Your task to perform on an android device: Open Youtube and go to "Your channel" Image 0: 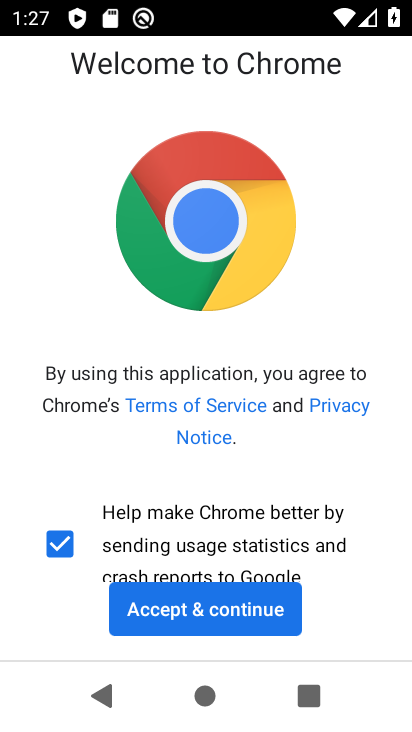
Step 0: click (234, 608)
Your task to perform on an android device: Open Youtube and go to "Your channel" Image 1: 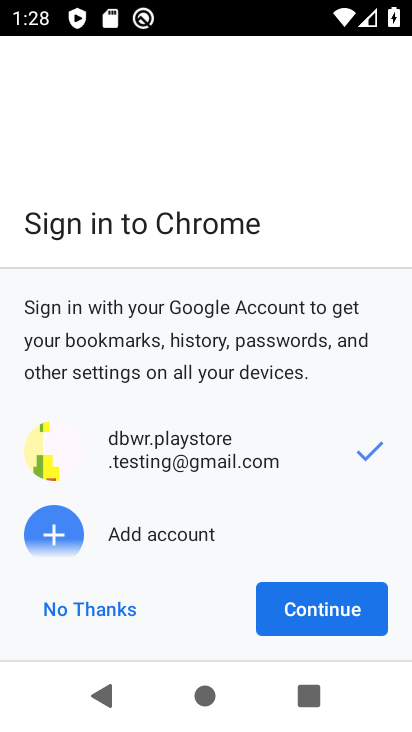
Step 1: press home button
Your task to perform on an android device: Open Youtube and go to "Your channel" Image 2: 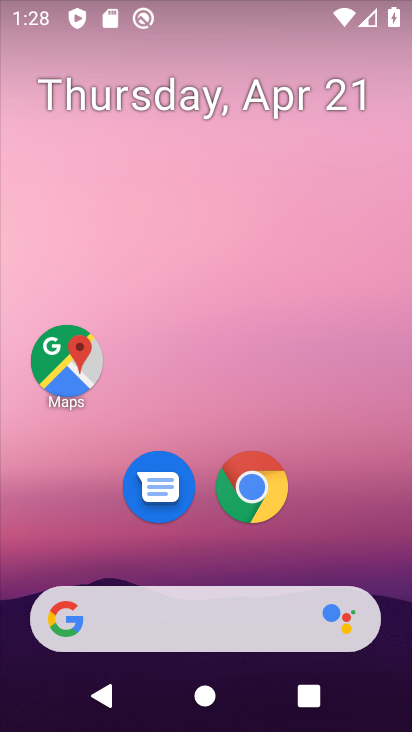
Step 2: click (268, 172)
Your task to perform on an android device: Open Youtube and go to "Your channel" Image 3: 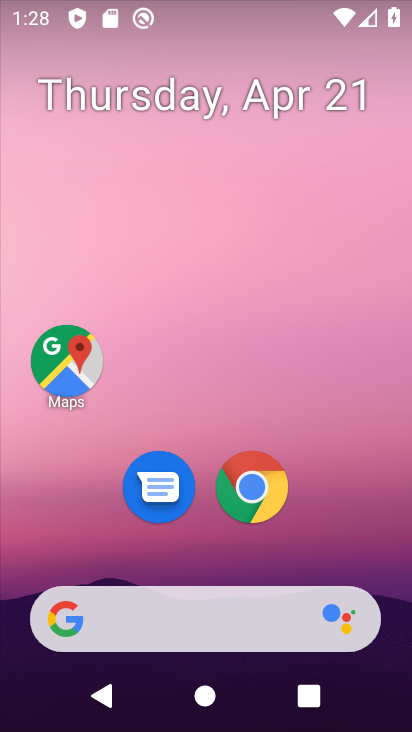
Step 3: drag from (217, 535) to (254, 182)
Your task to perform on an android device: Open Youtube and go to "Your channel" Image 4: 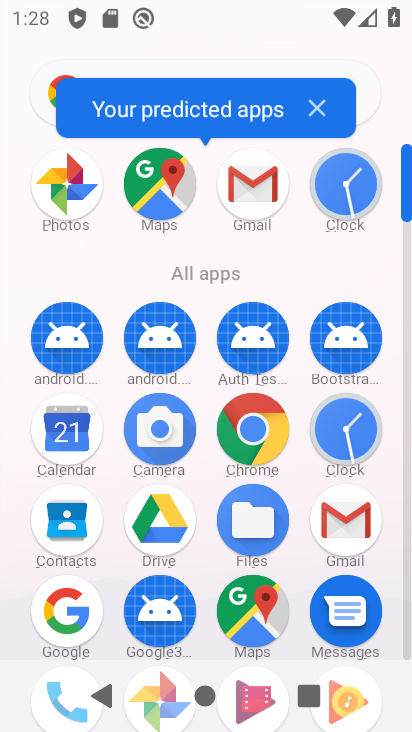
Step 4: drag from (206, 630) to (178, 321)
Your task to perform on an android device: Open Youtube and go to "Your channel" Image 5: 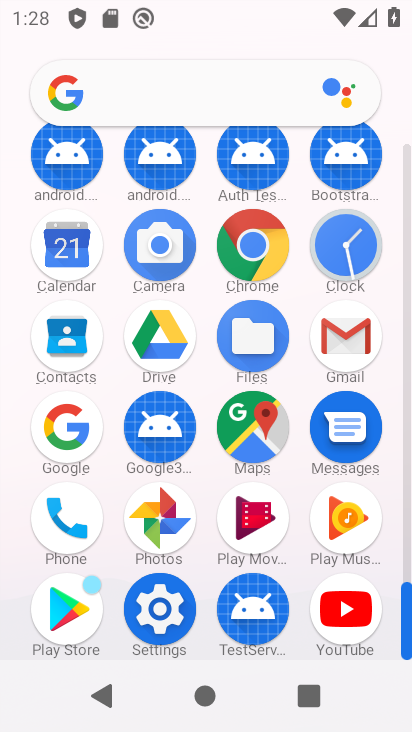
Step 5: click (337, 608)
Your task to perform on an android device: Open Youtube and go to "Your channel" Image 6: 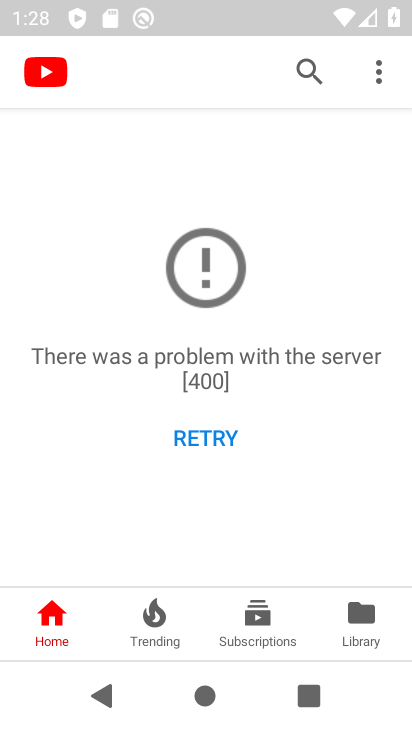
Step 6: click (355, 631)
Your task to perform on an android device: Open Youtube and go to "Your channel" Image 7: 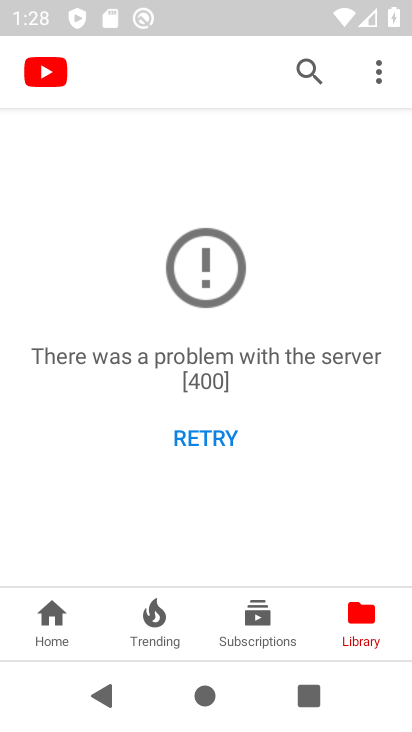
Step 7: click (230, 425)
Your task to perform on an android device: Open Youtube and go to "Your channel" Image 8: 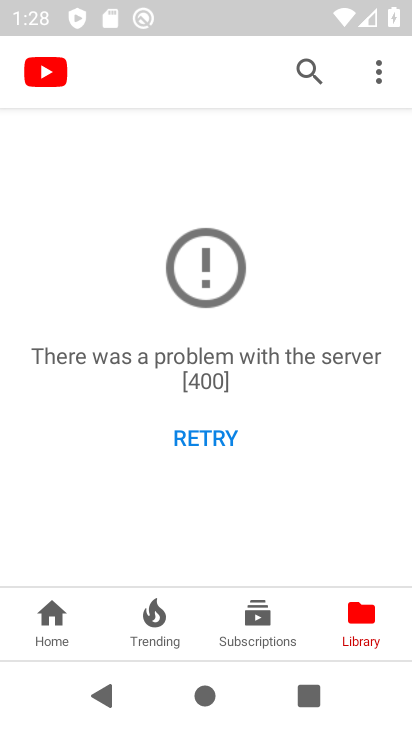
Step 8: click (382, 55)
Your task to perform on an android device: Open Youtube and go to "Your channel" Image 9: 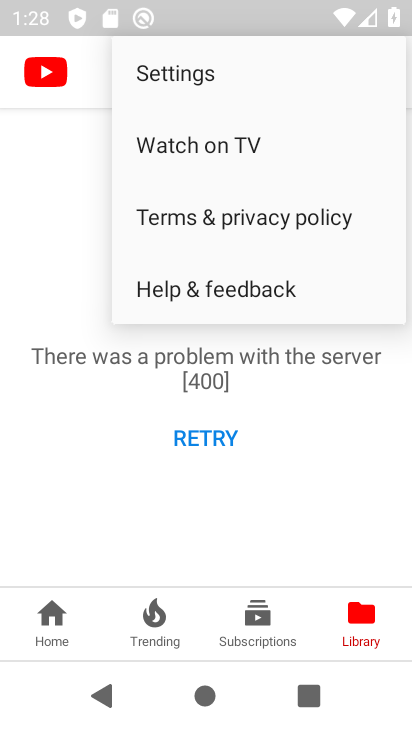
Step 9: click (205, 71)
Your task to perform on an android device: Open Youtube and go to "Your channel" Image 10: 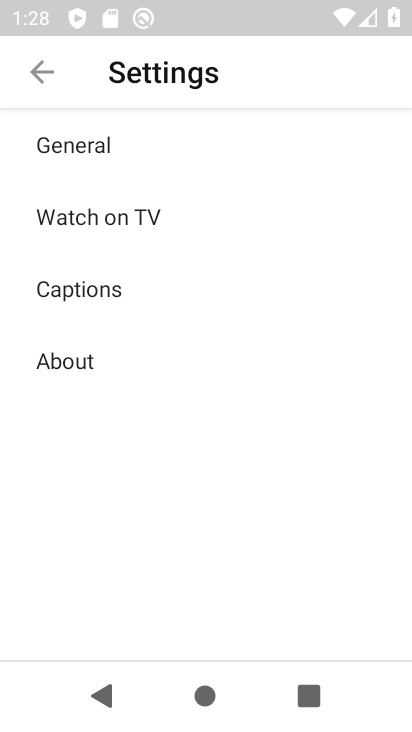
Step 10: click (136, 160)
Your task to perform on an android device: Open Youtube and go to "Your channel" Image 11: 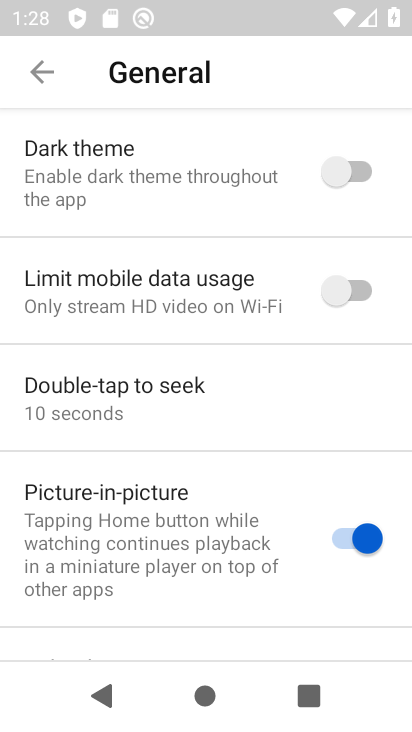
Step 11: click (53, 84)
Your task to perform on an android device: Open Youtube and go to "Your channel" Image 12: 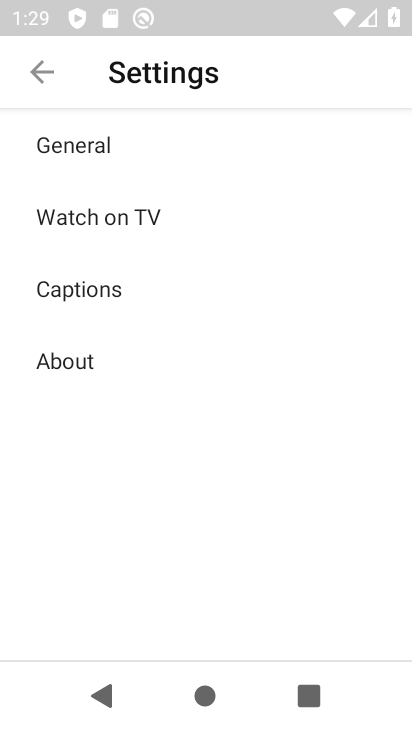
Step 12: click (53, 84)
Your task to perform on an android device: Open Youtube and go to "Your channel" Image 13: 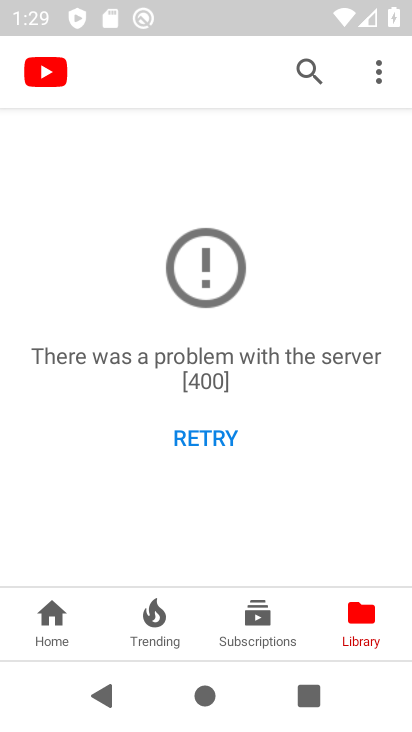
Step 13: click (306, 617)
Your task to perform on an android device: Open Youtube and go to "Your channel" Image 14: 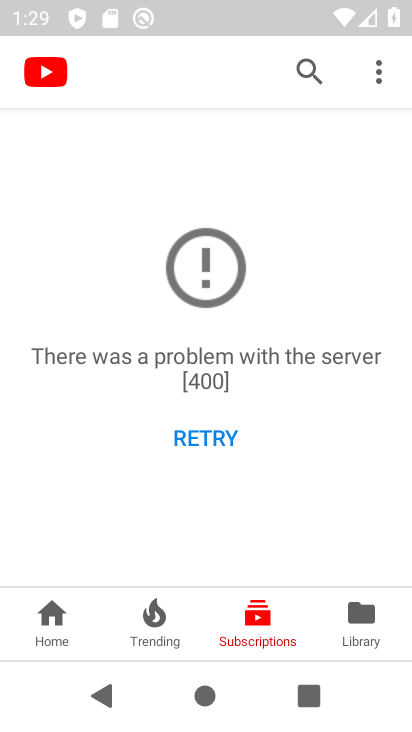
Step 14: click (372, 612)
Your task to perform on an android device: Open Youtube and go to "Your channel" Image 15: 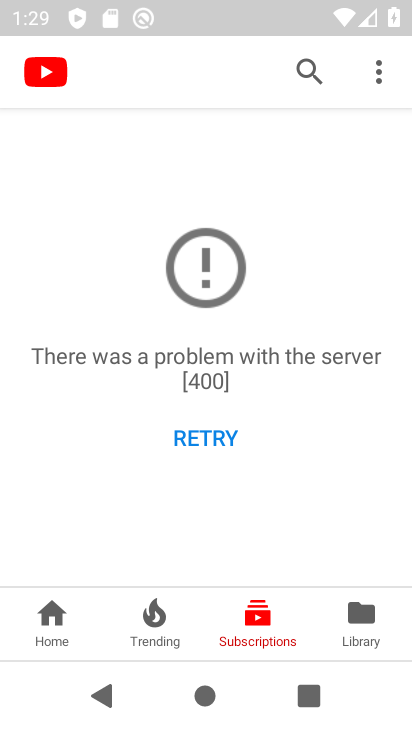
Step 15: click (352, 617)
Your task to perform on an android device: Open Youtube and go to "Your channel" Image 16: 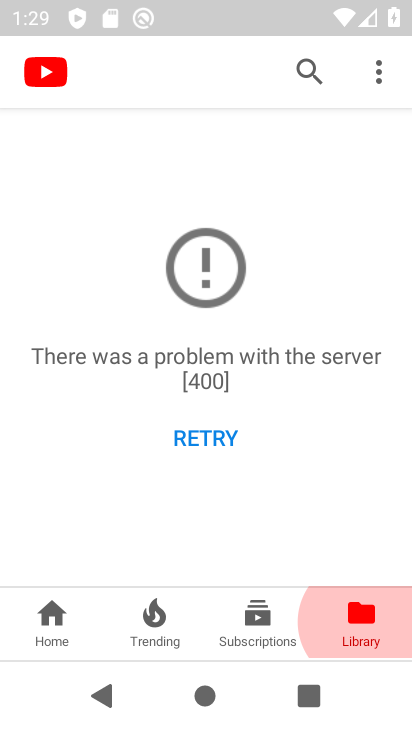
Step 16: click (253, 617)
Your task to perform on an android device: Open Youtube and go to "Your channel" Image 17: 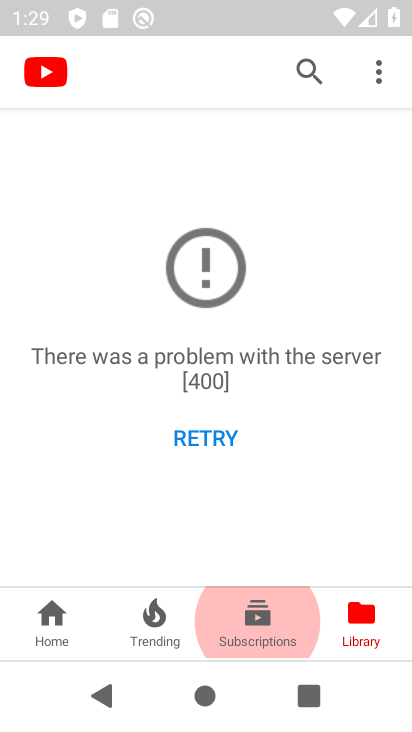
Step 17: click (151, 608)
Your task to perform on an android device: Open Youtube and go to "Your channel" Image 18: 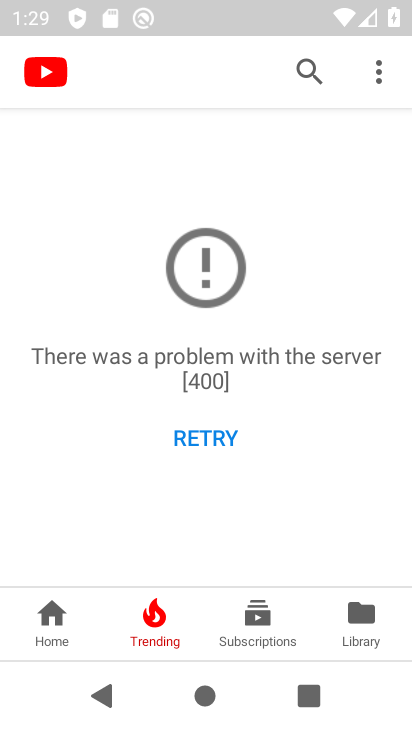
Step 18: click (45, 607)
Your task to perform on an android device: Open Youtube and go to "Your channel" Image 19: 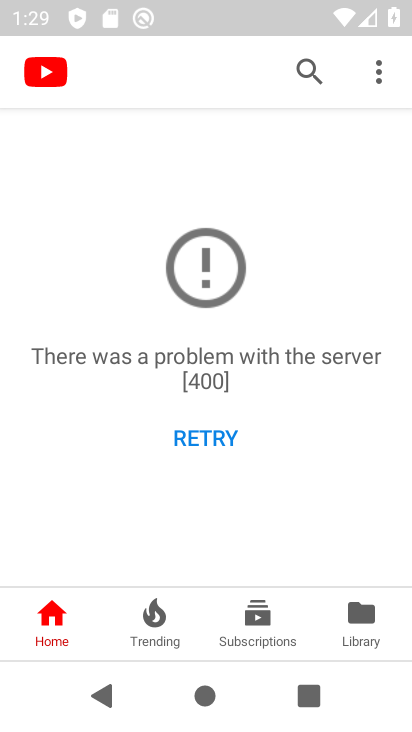
Step 19: click (383, 640)
Your task to perform on an android device: Open Youtube and go to "Your channel" Image 20: 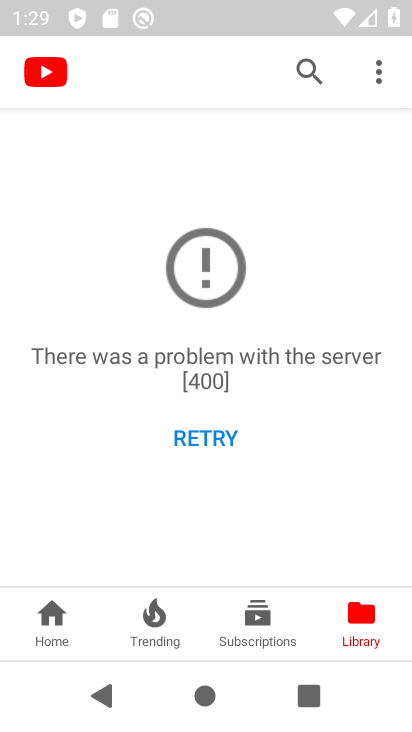
Step 20: task complete